Your task to perform on an android device: Search for razer blade on amazon.com, select the first entry, add it to the cart, then select checkout. Image 0: 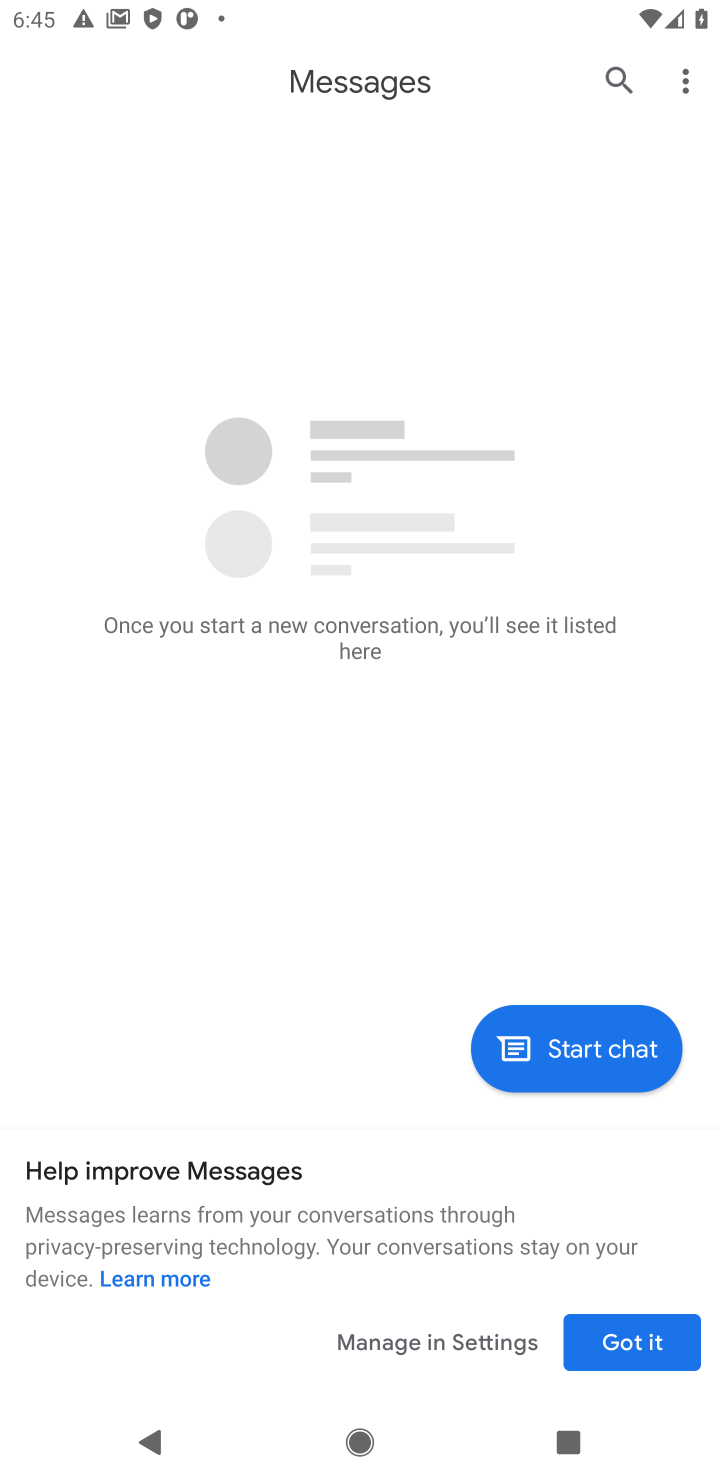
Step 0: press home button
Your task to perform on an android device: Search for razer blade on amazon.com, select the first entry, add it to the cart, then select checkout. Image 1: 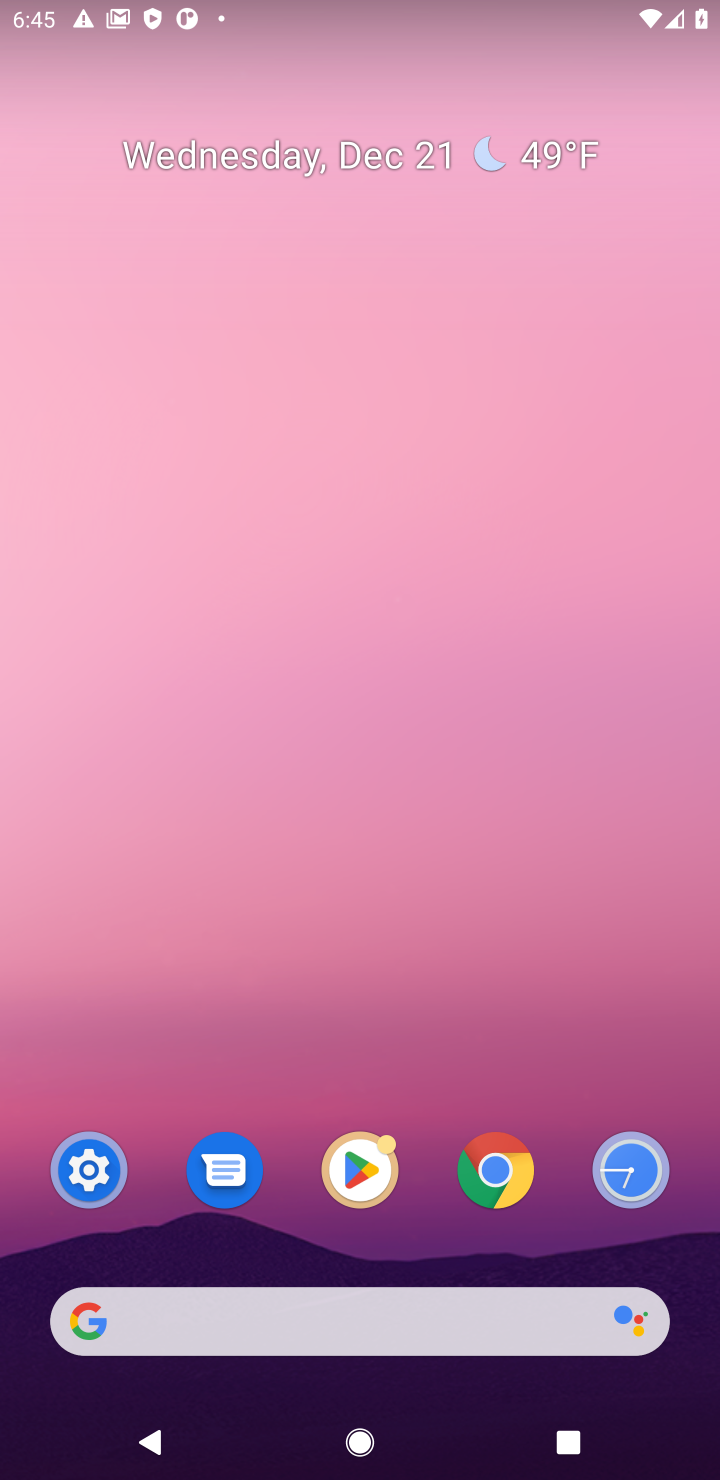
Step 1: click (499, 1162)
Your task to perform on an android device: Search for razer blade on amazon.com, select the first entry, add it to the cart, then select checkout. Image 2: 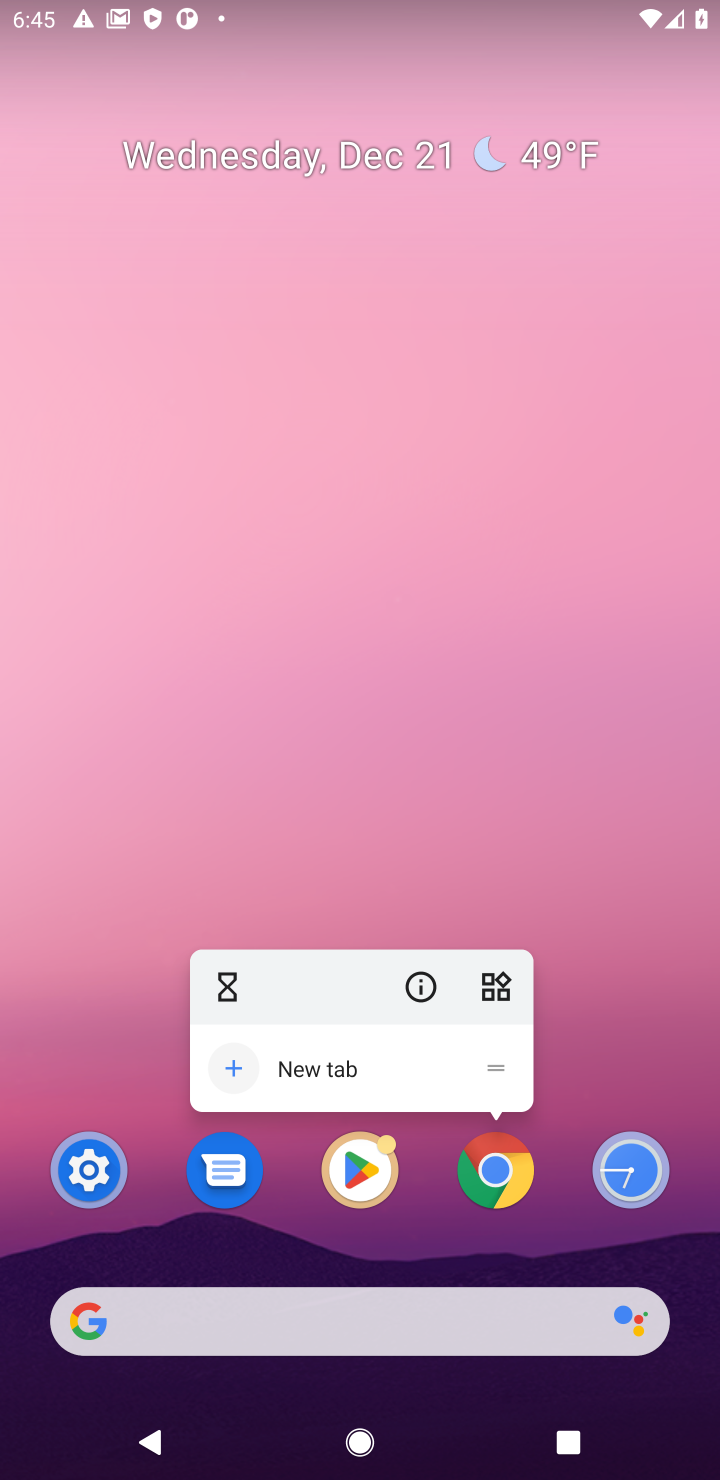
Step 2: click (497, 1170)
Your task to perform on an android device: Search for razer blade on amazon.com, select the first entry, add it to the cart, then select checkout. Image 3: 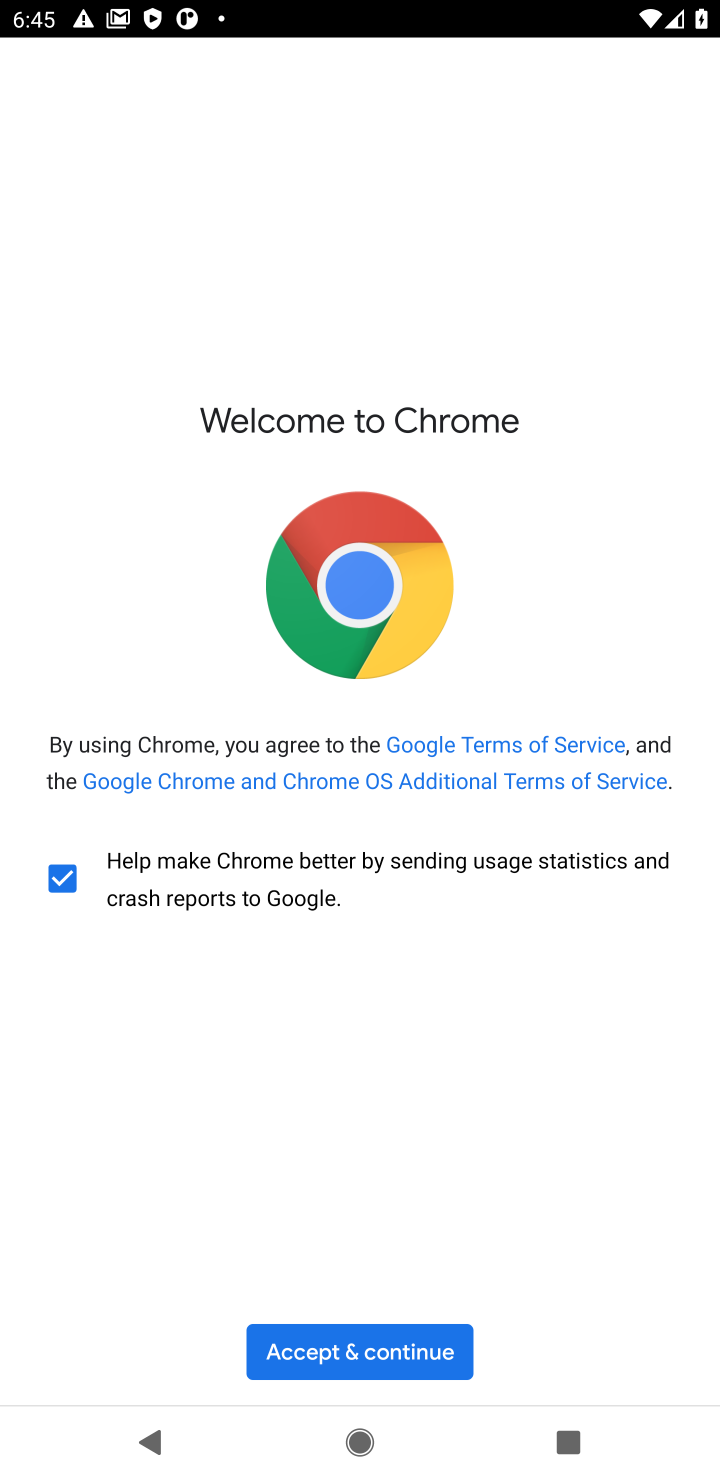
Step 3: click (343, 1344)
Your task to perform on an android device: Search for razer blade on amazon.com, select the first entry, add it to the cart, then select checkout. Image 4: 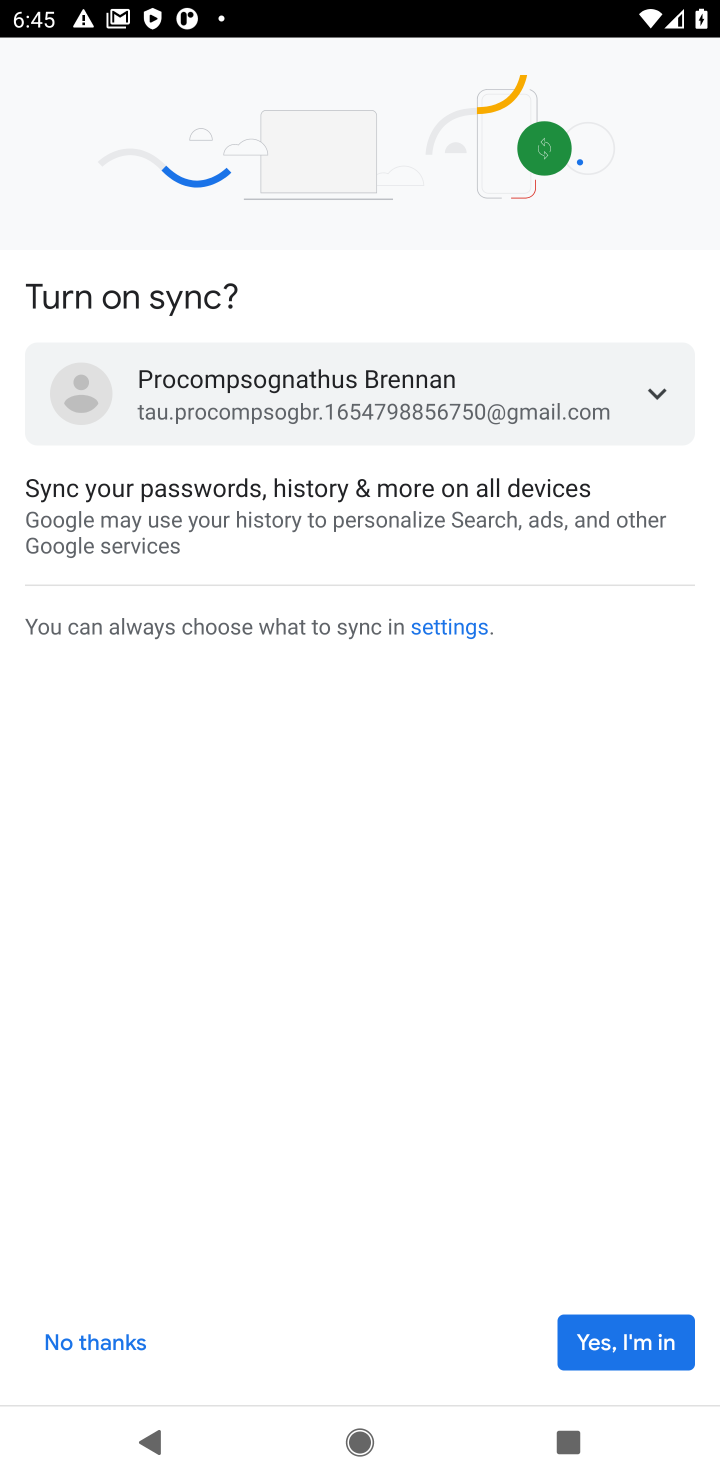
Step 4: click (600, 1343)
Your task to perform on an android device: Search for razer blade on amazon.com, select the first entry, add it to the cart, then select checkout. Image 5: 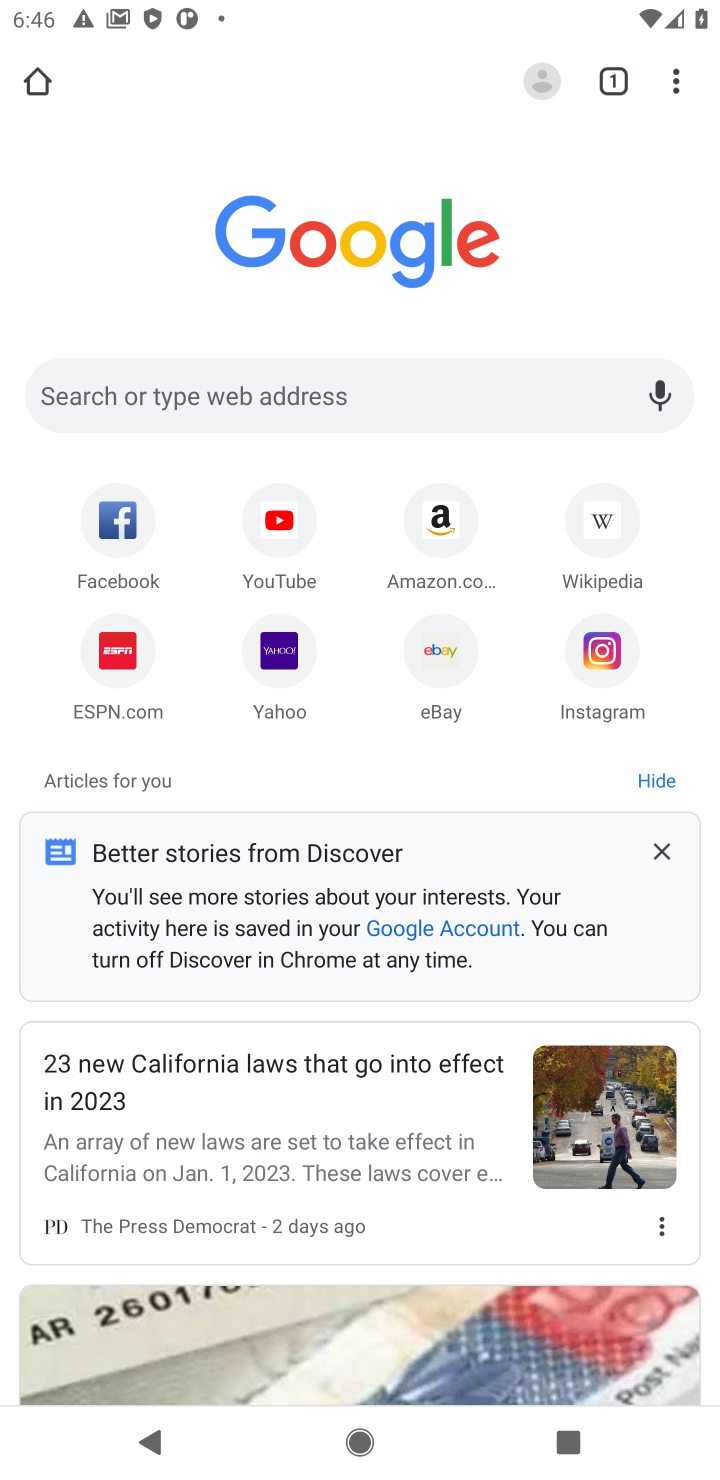
Step 5: click (366, 390)
Your task to perform on an android device: Search for razer blade on amazon.com, select the first entry, add it to the cart, then select checkout. Image 6: 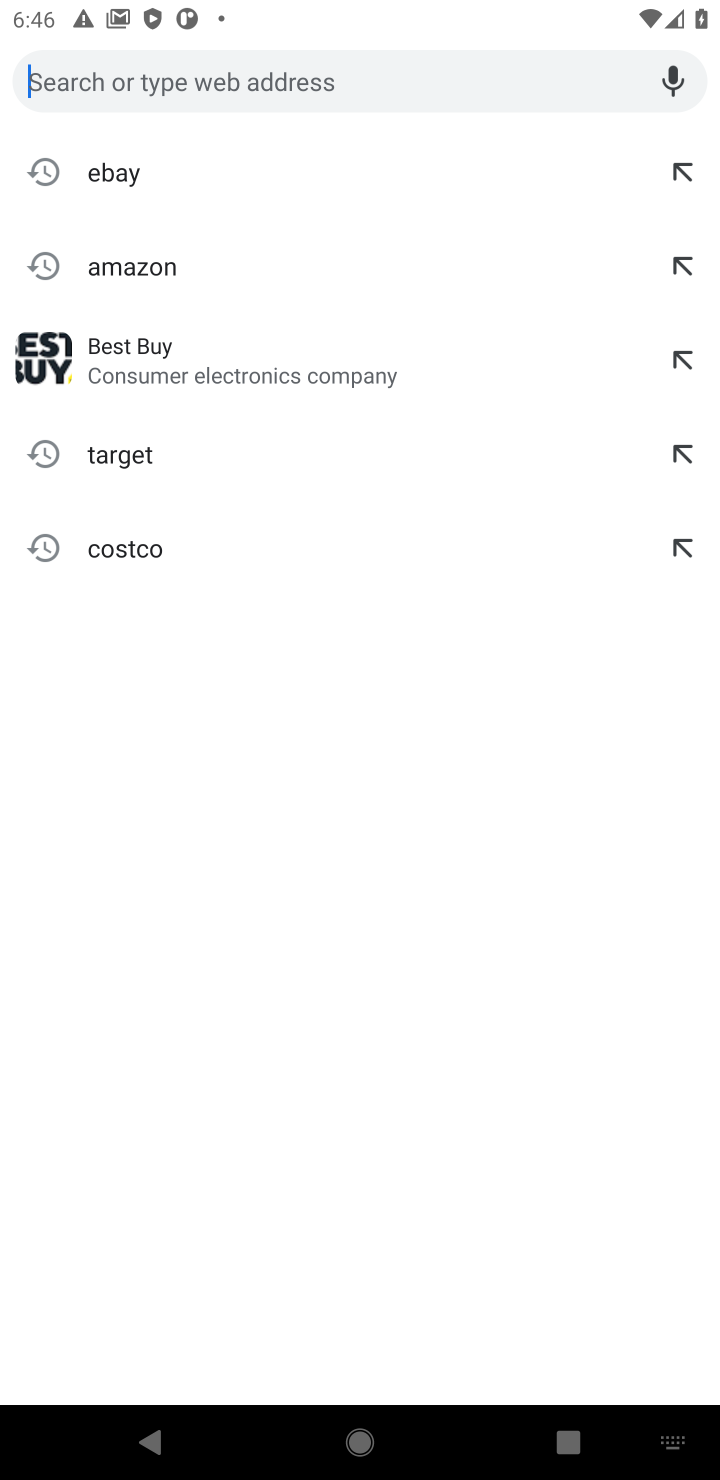
Step 6: click (212, 273)
Your task to perform on an android device: Search for razer blade on amazon.com, select the first entry, add it to the cart, then select checkout. Image 7: 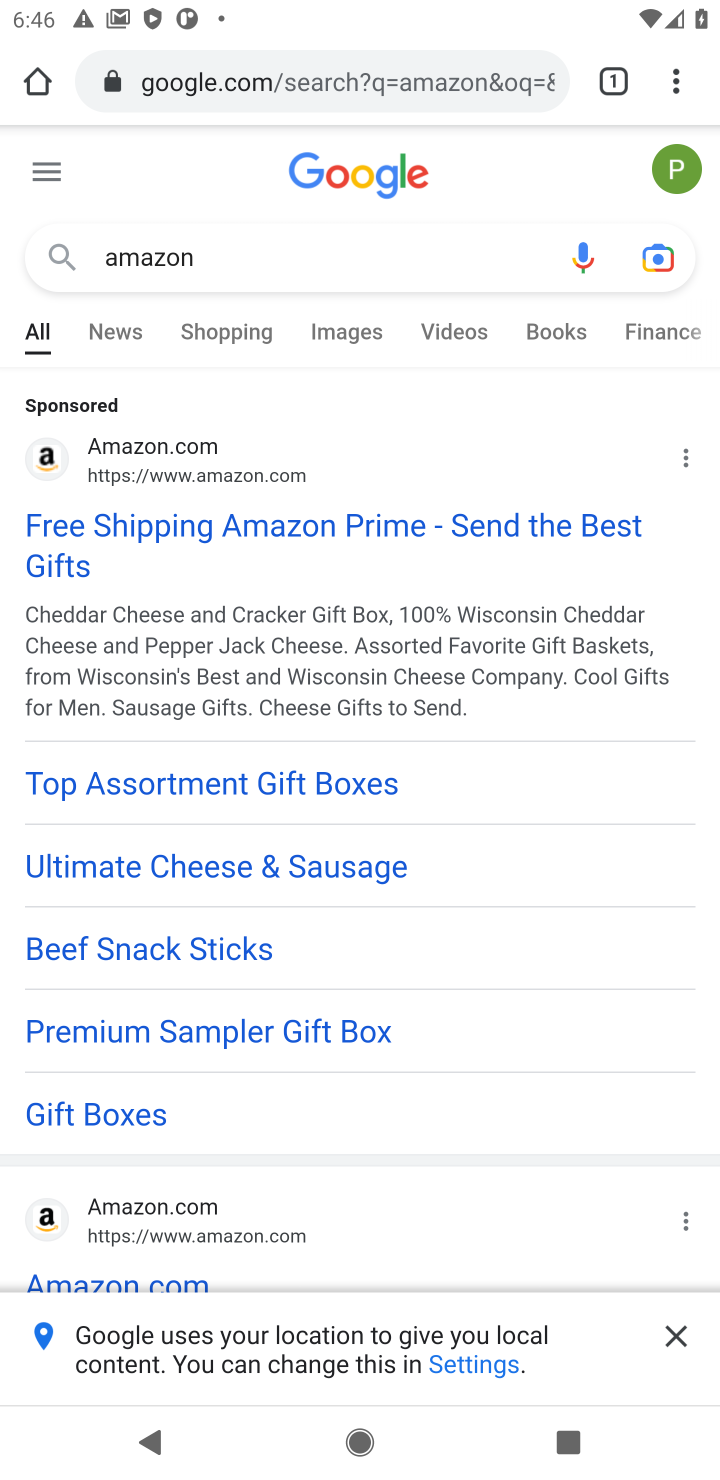
Step 7: click (249, 532)
Your task to perform on an android device: Search for razer blade on amazon.com, select the first entry, add it to the cart, then select checkout. Image 8: 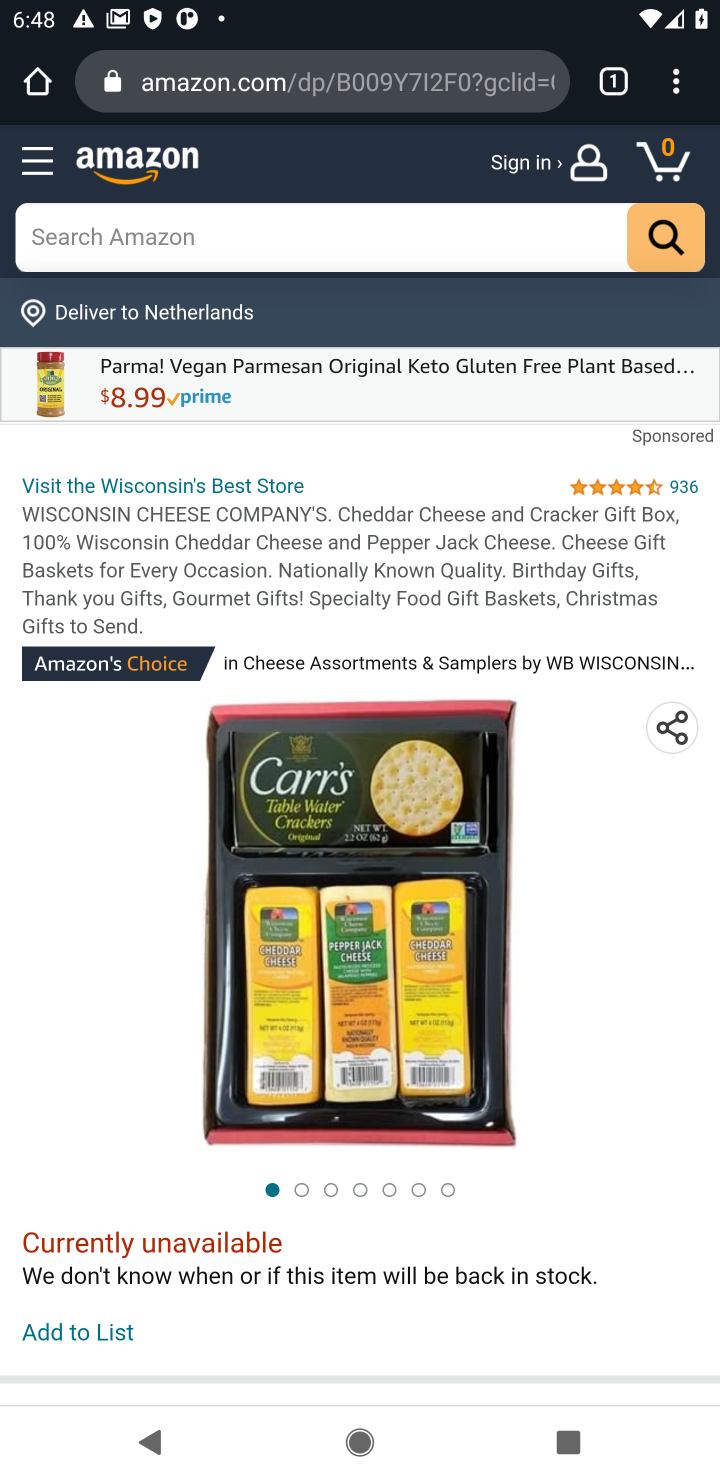
Step 8: click (372, 247)
Your task to perform on an android device: Search for razer blade on amazon.com, select the first entry, add it to the cart, then select checkout. Image 9: 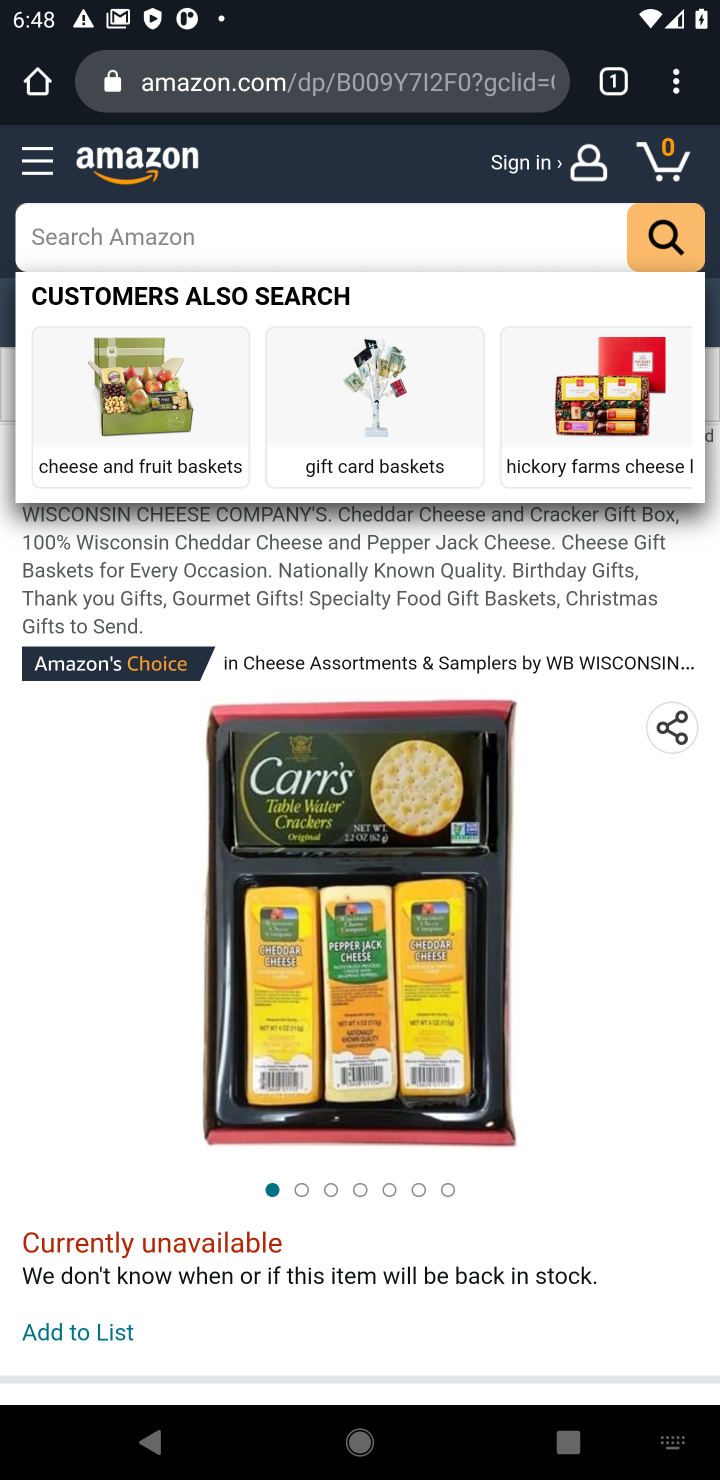
Step 9: type "razer blade"
Your task to perform on an android device: Search for razer blade on amazon.com, select the first entry, add it to the cart, then select checkout. Image 10: 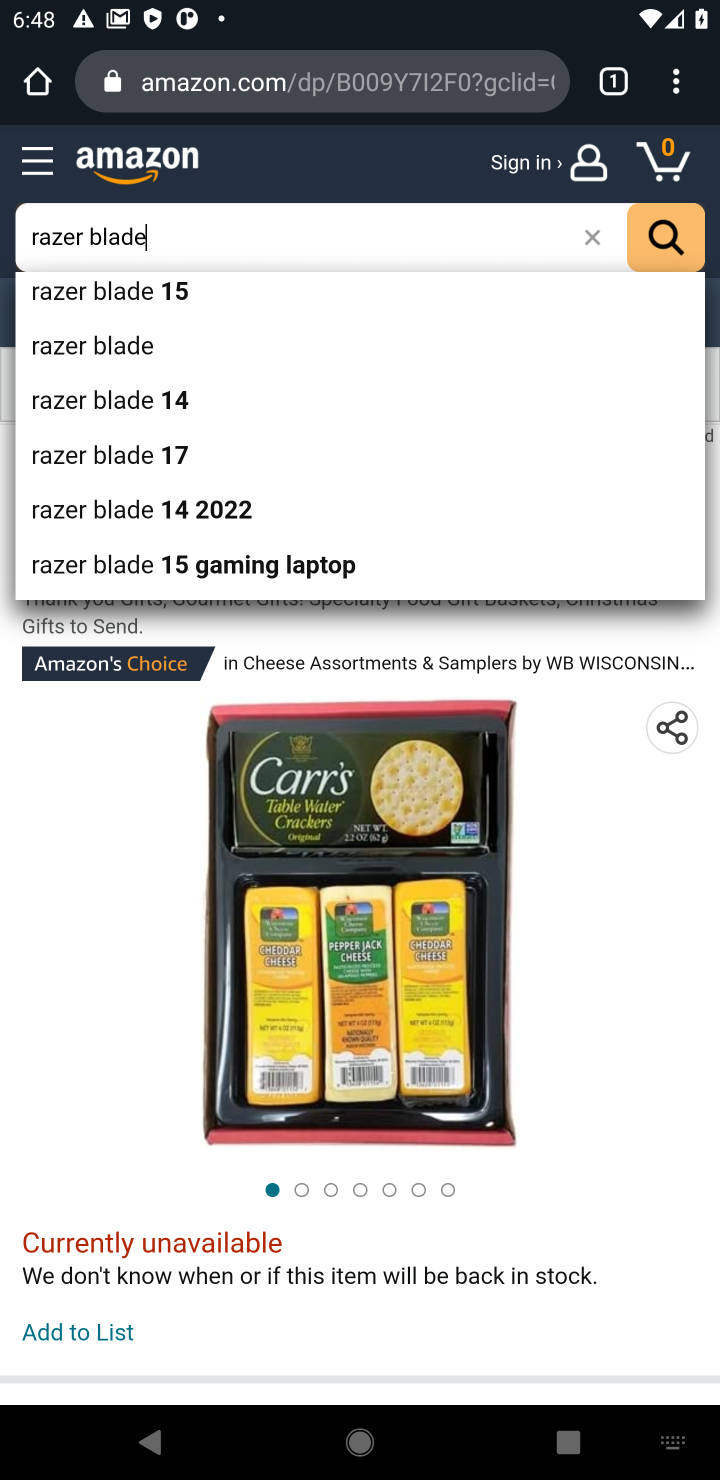
Step 10: click (162, 296)
Your task to perform on an android device: Search for razer blade on amazon.com, select the first entry, add it to the cart, then select checkout. Image 11: 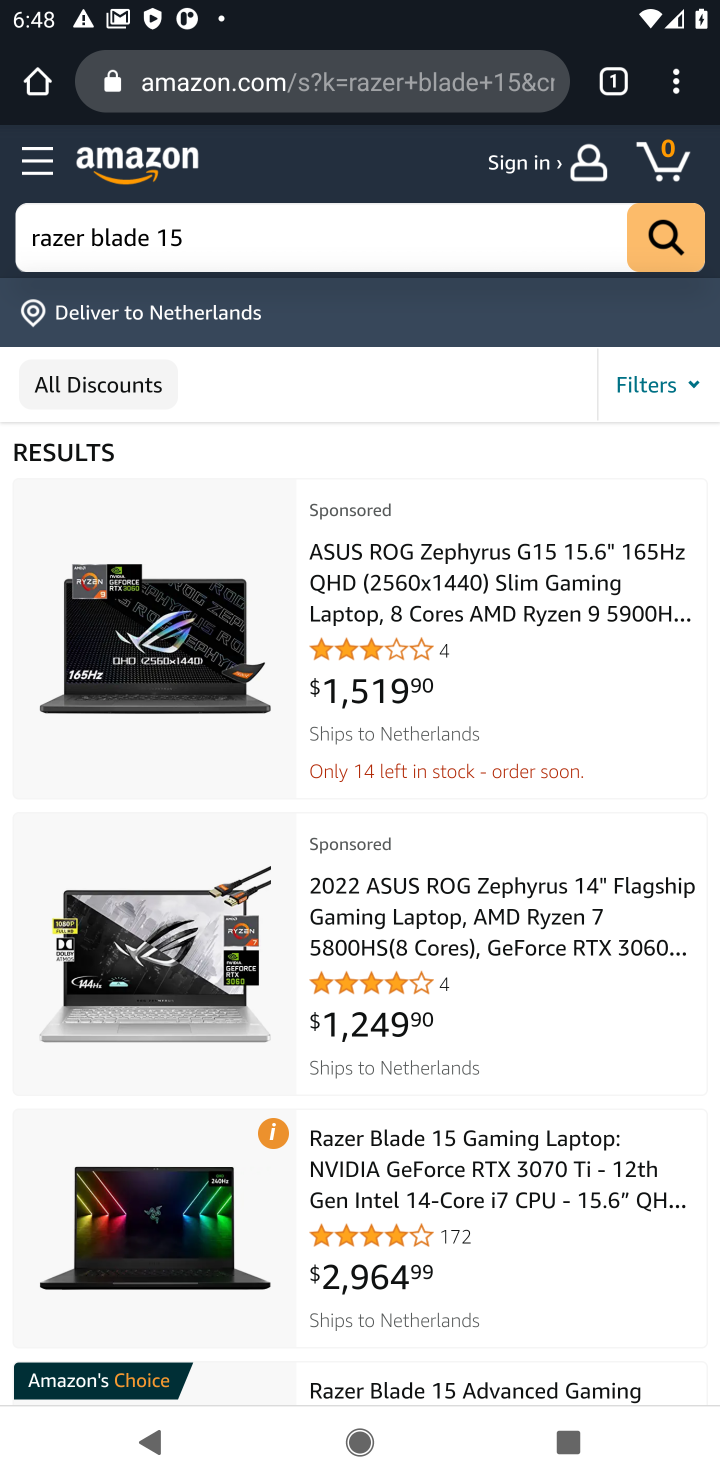
Step 11: click (514, 592)
Your task to perform on an android device: Search for razer blade on amazon.com, select the first entry, add it to the cart, then select checkout. Image 12: 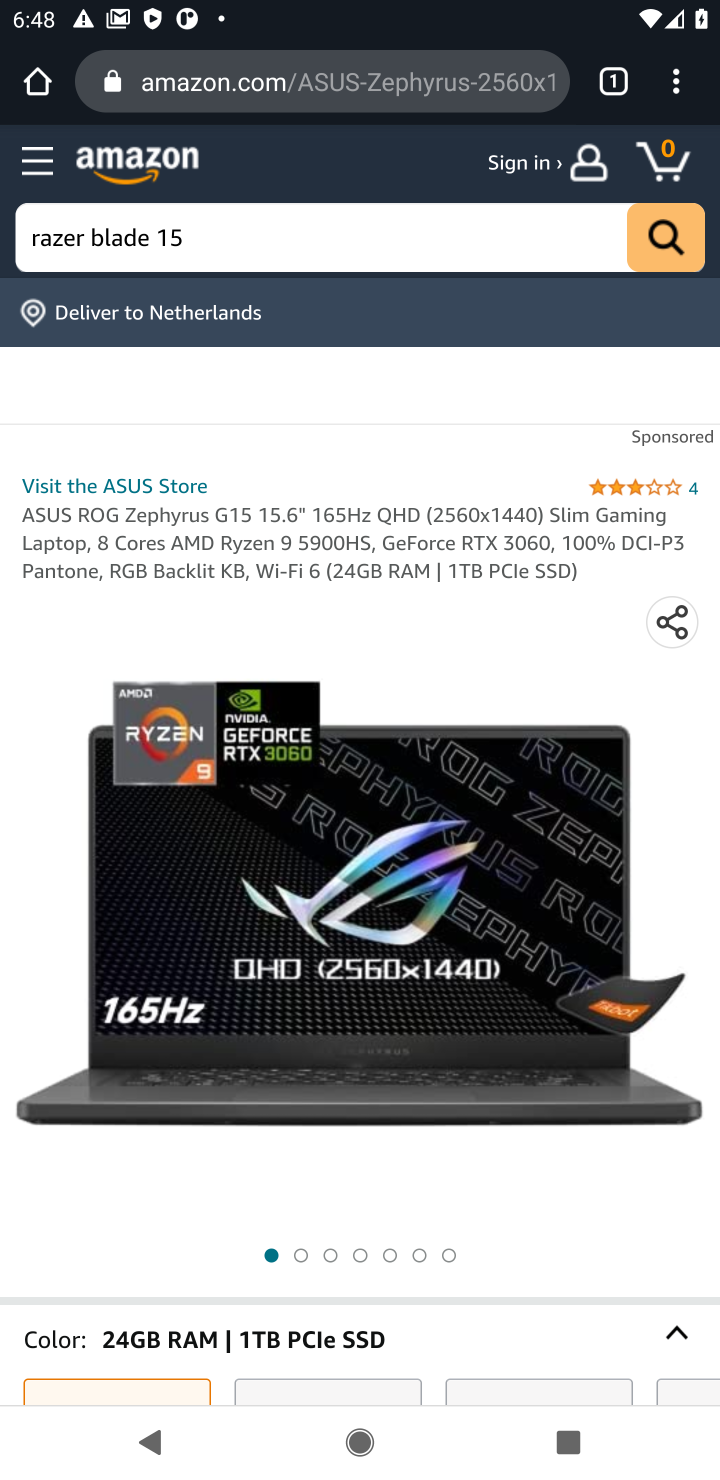
Step 12: click (375, 382)
Your task to perform on an android device: Search for razer blade on amazon.com, select the first entry, add it to the cart, then select checkout. Image 13: 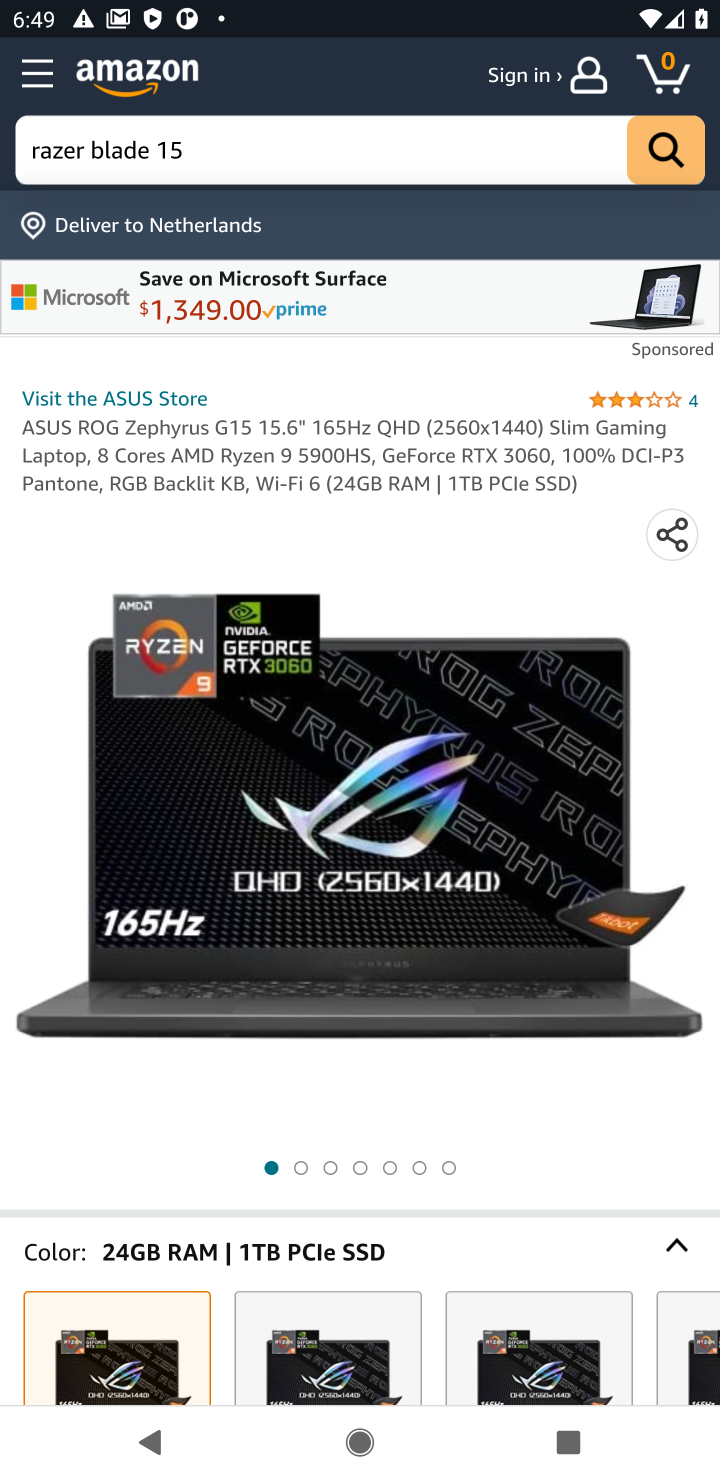
Step 13: drag from (506, 782) to (472, 265)
Your task to perform on an android device: Search for razer blade on amazon.com, select the first entry, add it to the cart, then select checkout. Image 14: 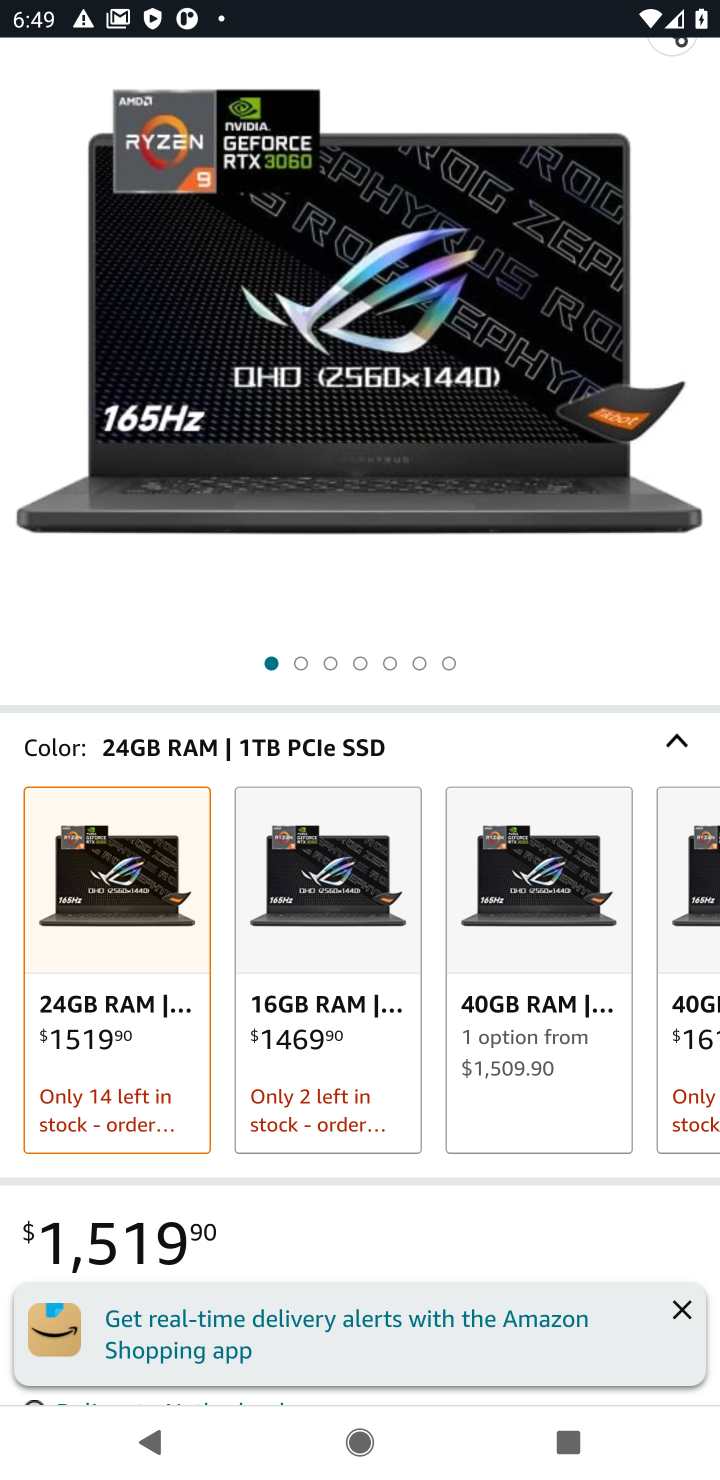
Step 14: drag from (422, 1200) to (428, 231)
Your task to perform on an android device: Search for razer blade on amazon.com, select the first entry, add it to the cart, then select checkout. Image 15: 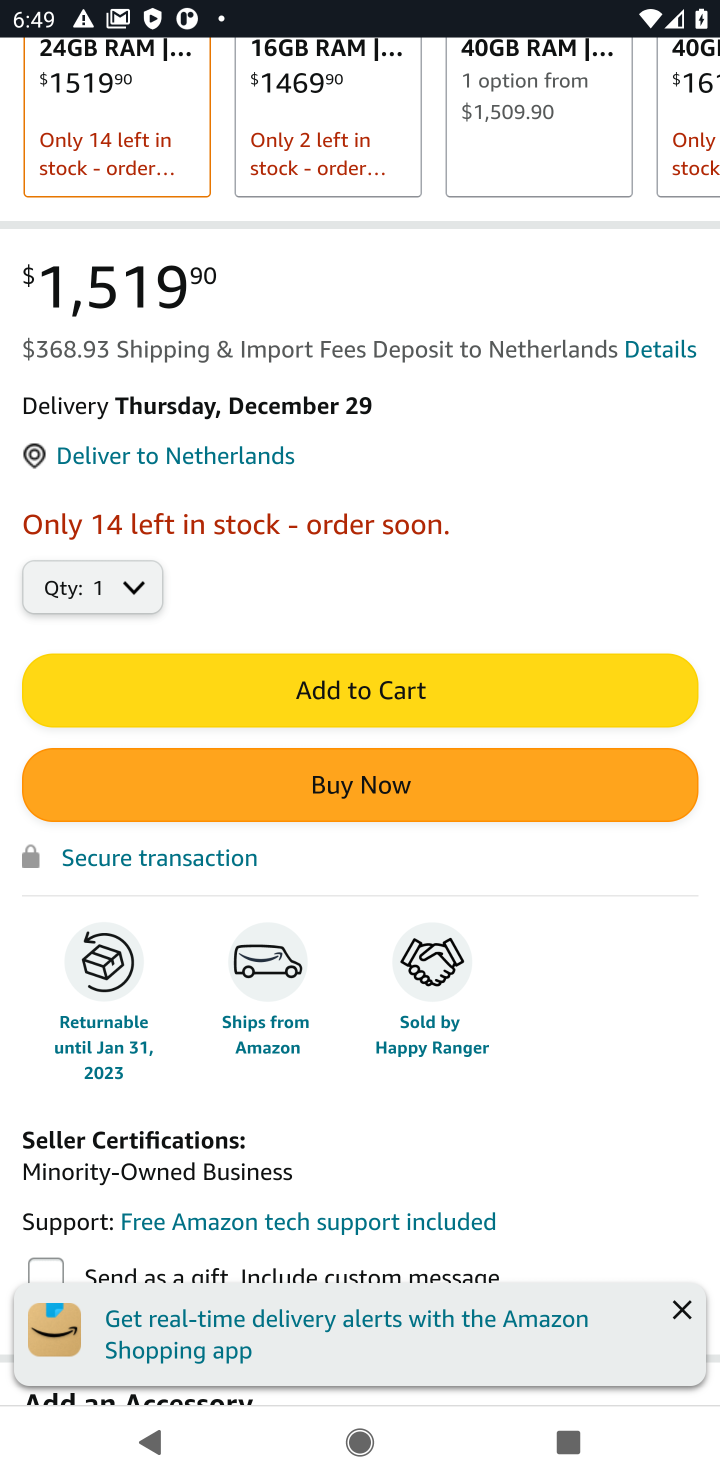
Step 15: click (380, 694)
Your task to perform on an android device: Search for razer blade on amazon.com, select the first entry, add it to the cart, then select checkout. Image 16: 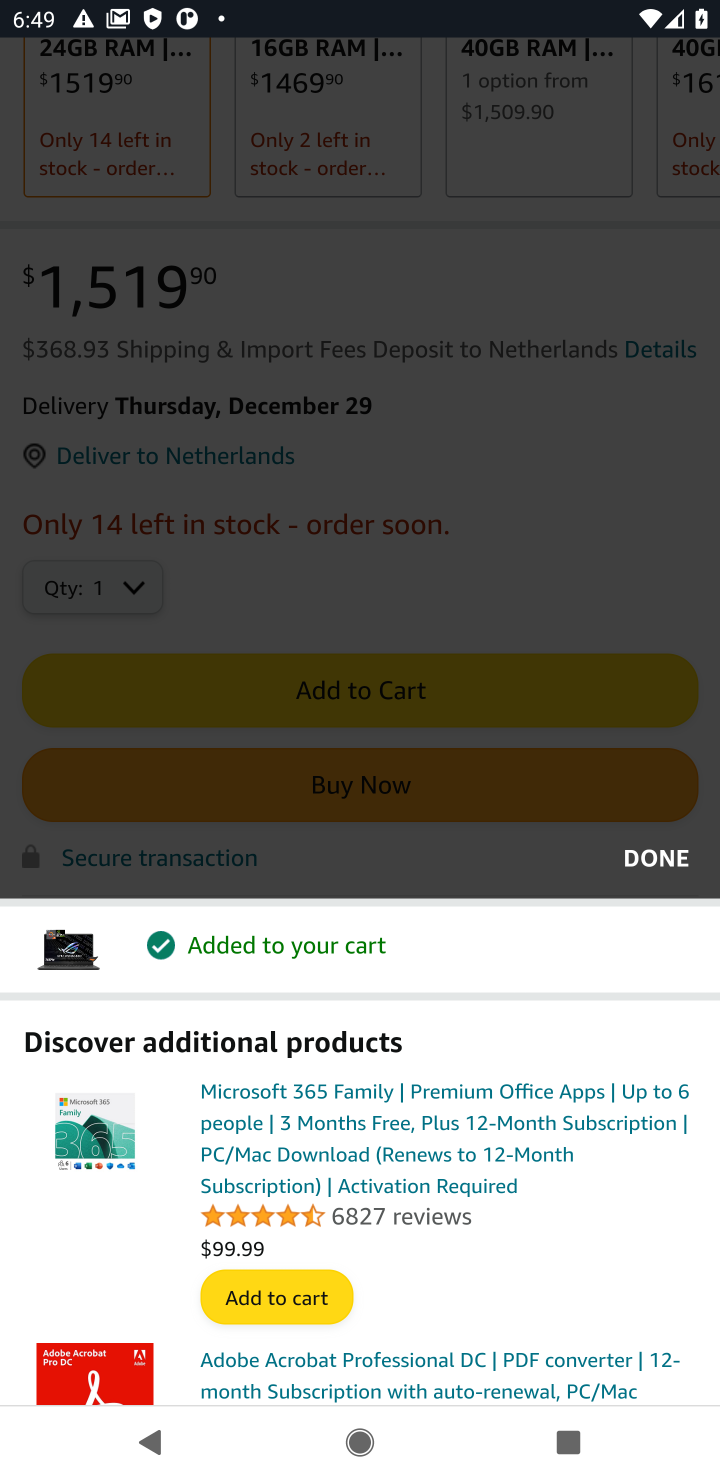
Step 16: click (652, 862)
Your task to perform on an android device: Search for razer blade on amazon.com, select the first entry, add it to the cart, then select checkout. Image 17: 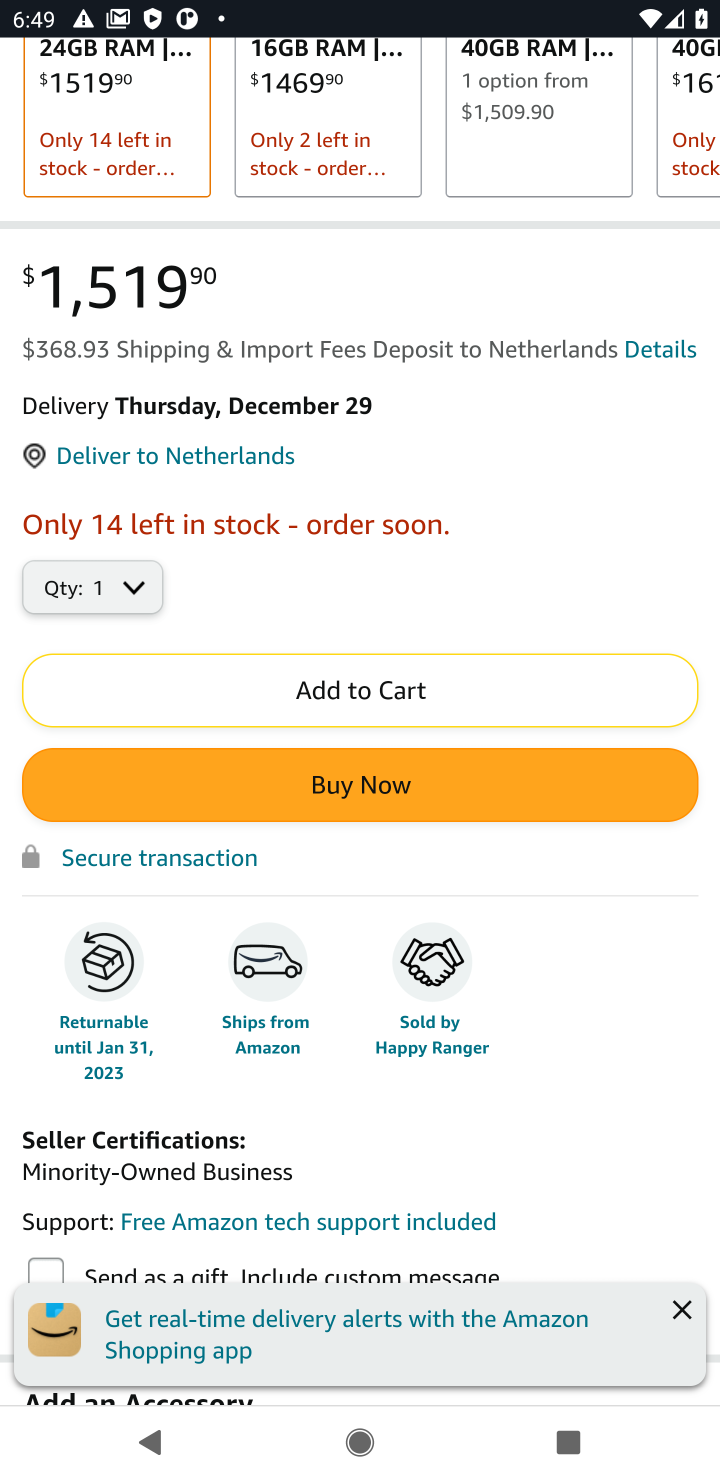
Step 17: drag from (573, 136) to (574, 1009)
Your task to perform on an android device: Search for razer blade on amazon.com, select the first entry, add it to the cart, then select checkout. Image 18: 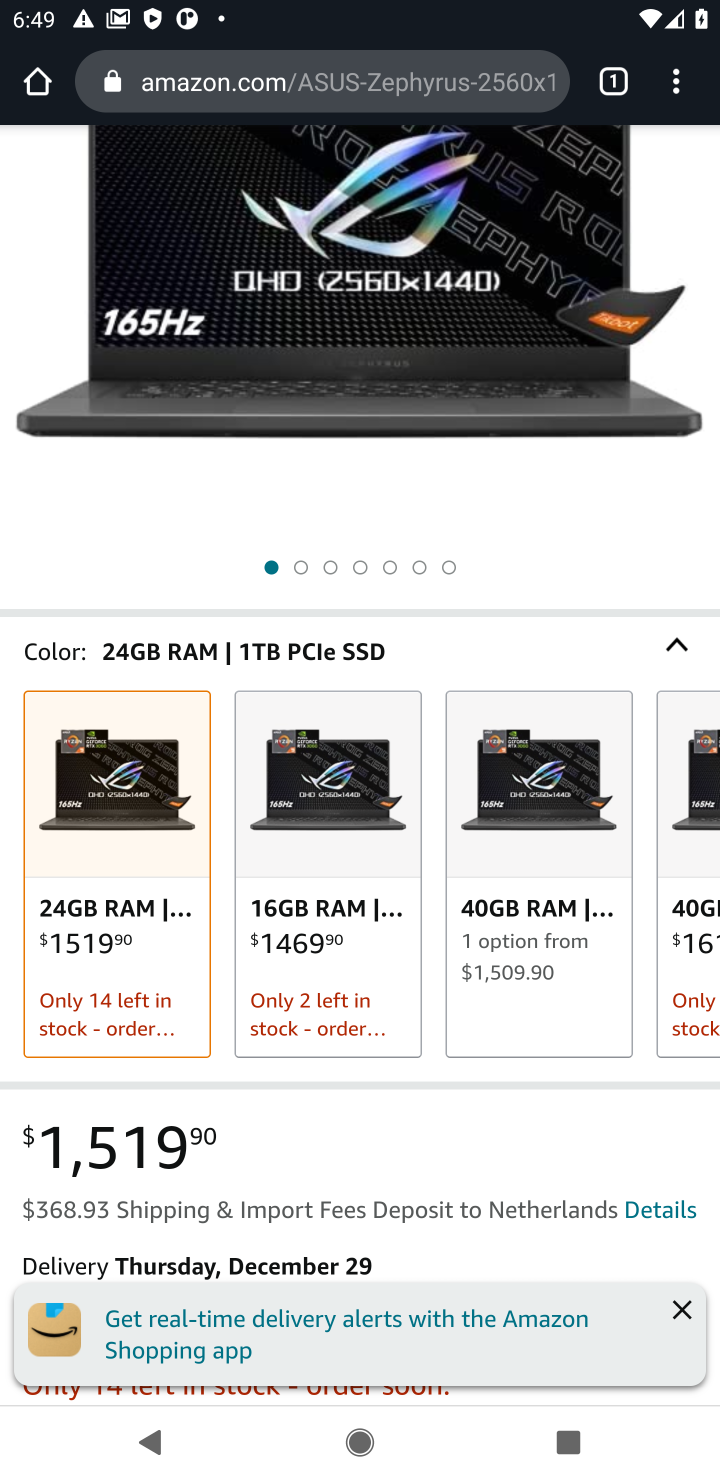
Step 18: drag from (525, 183) to (504, 1053)
Your task to perform on an android device: Search for razer blade on amazon.com, select the first entry, add it to the cart, then select checkout. Image 19: 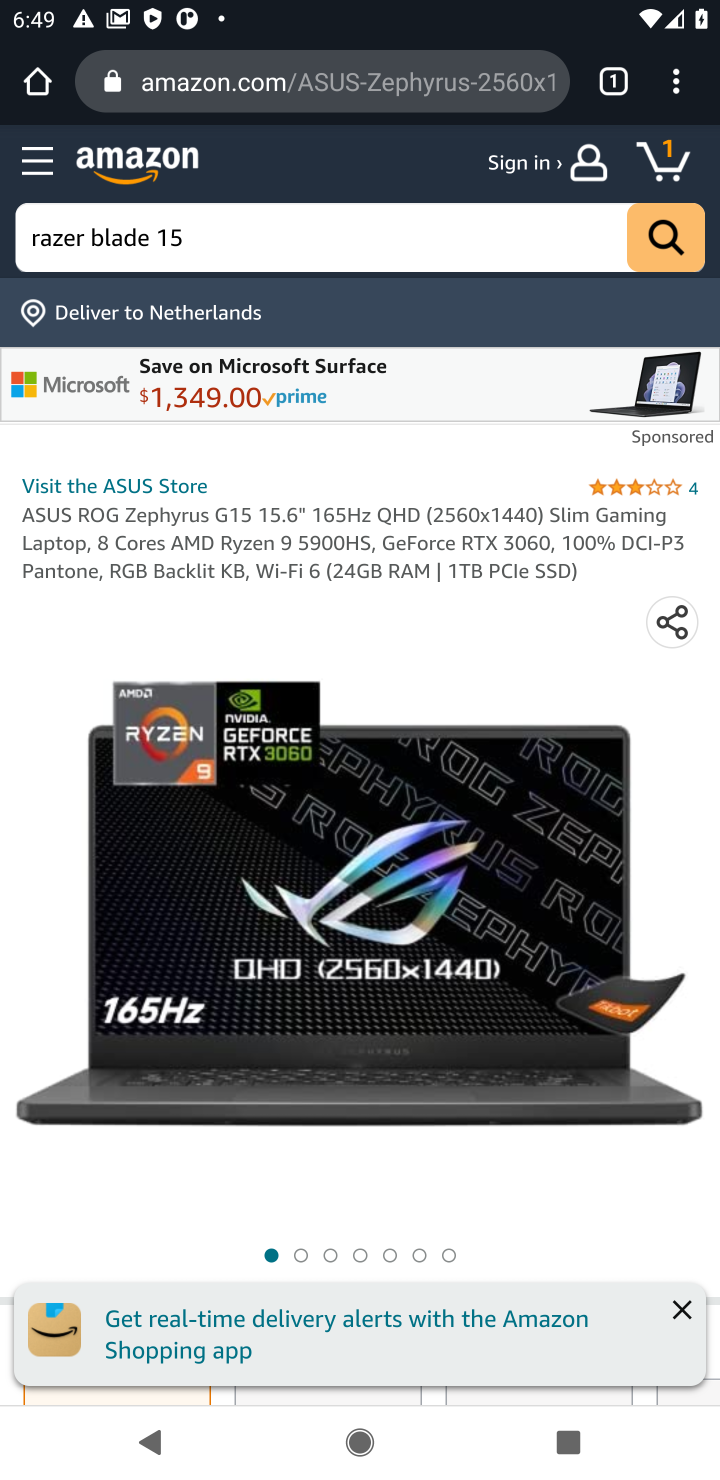
Step 19: click (654, 164)
Your task to perform on an android device: Search for razer blade on amazon.com, select the first entry, add it to the cart, then select checkout. Image 20: 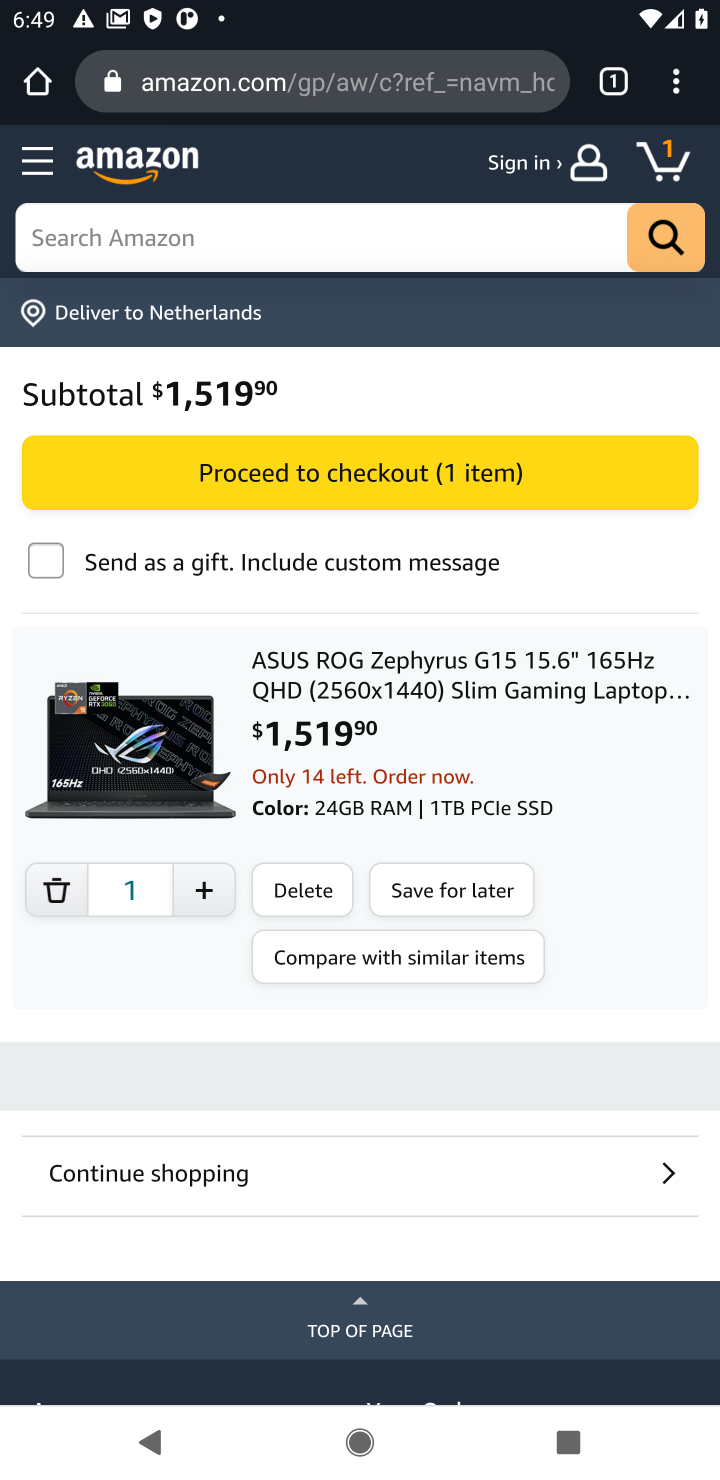
Step 20: click (450, 474)
Your task to perform on an android device: Search for razer blade on amazon.com, select the first entry, add it to the cart, then select checkout. Image 21: 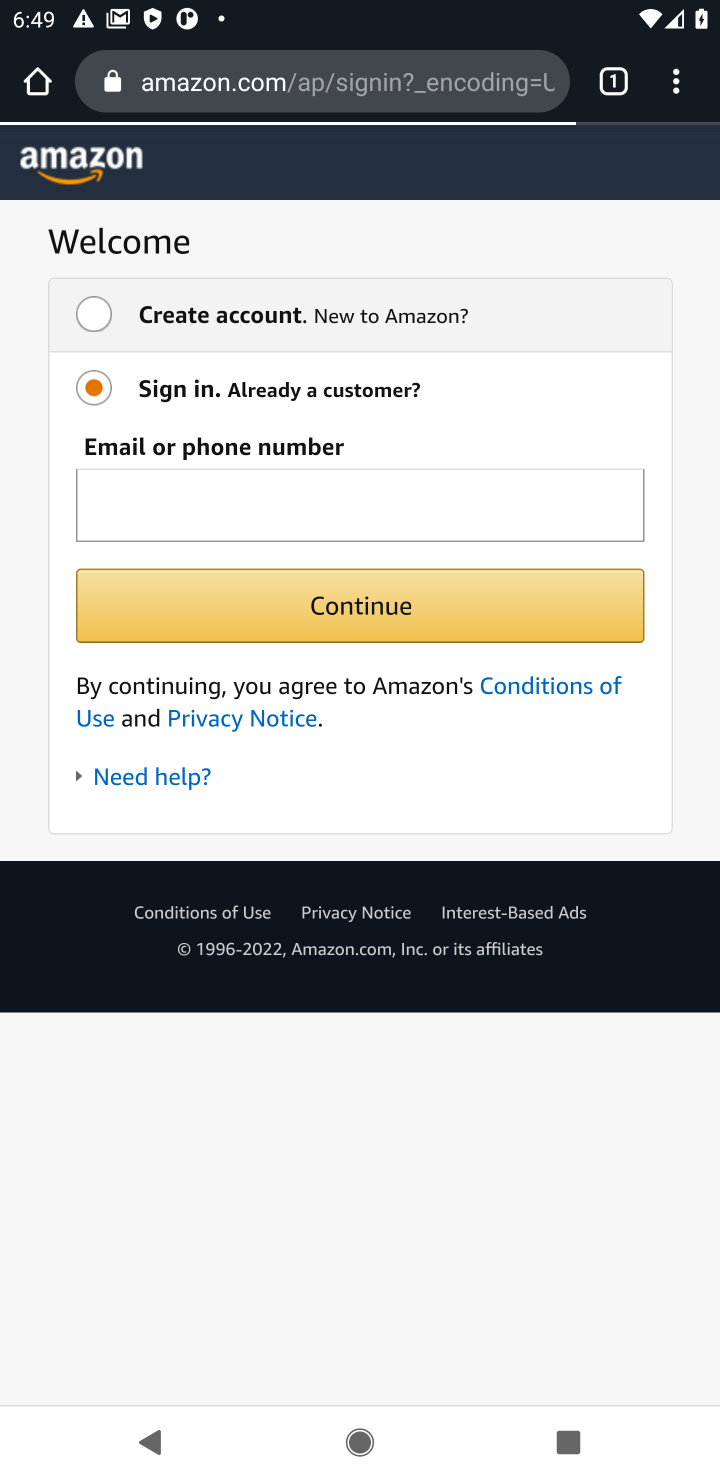
Step 21: task complete